Your task to perform on an android device: turn on the 12-hour format for clock Image 0: 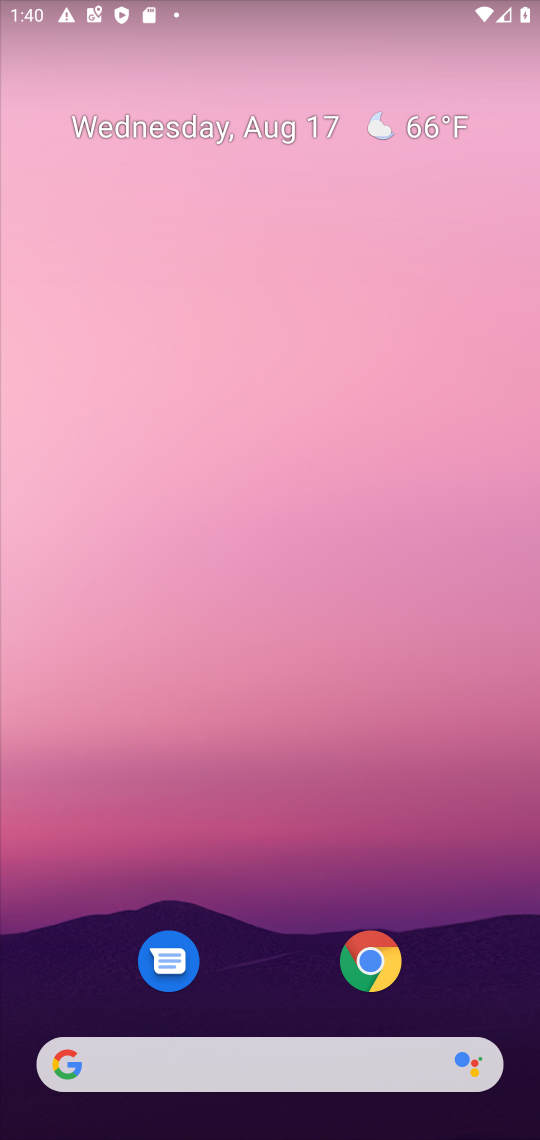
Step 0: drag from (199, 836) to (9, 635)
Your task to perform on an android device: turn on the 12-hour format for clock Image 1: 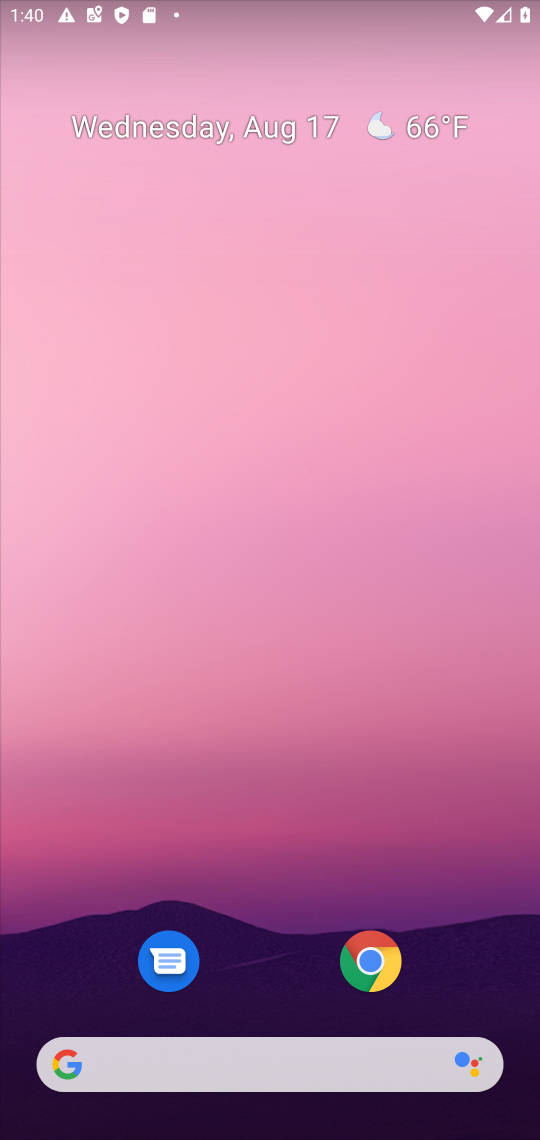
Step 1: drag from (301, 888) to (323, 71)
Your task to perform on an android device: turn on the 12-hour format for clock Image 2: 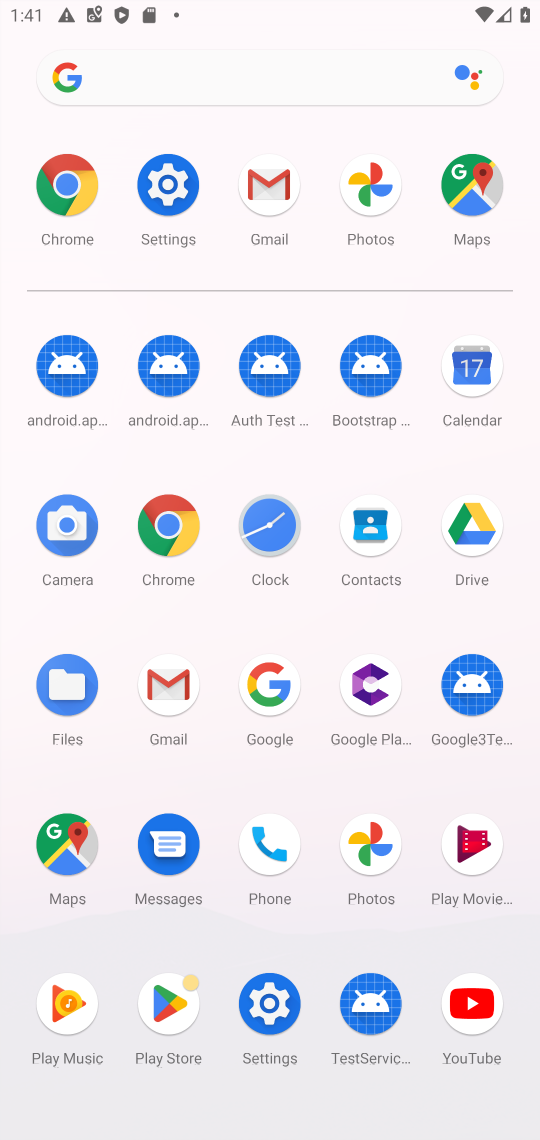
Step 2: click (279, 553)
Your task to perform on an android device: turn on the 12-hour format for clock Image 3: 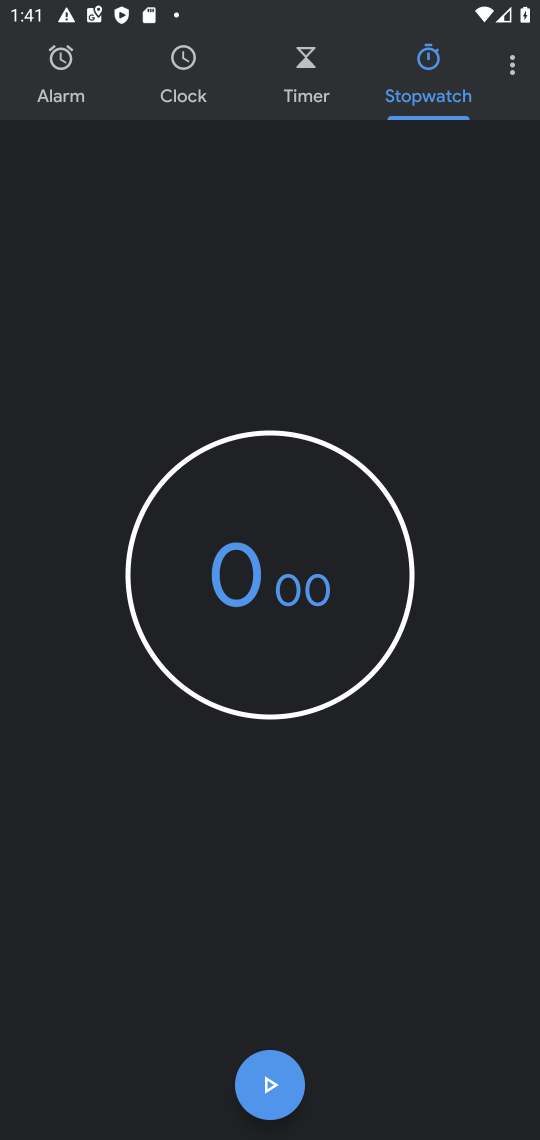
Step 3: click (494, 75)
Your task to perform on an android device: turn on the 12-hour format for clock Image 4: 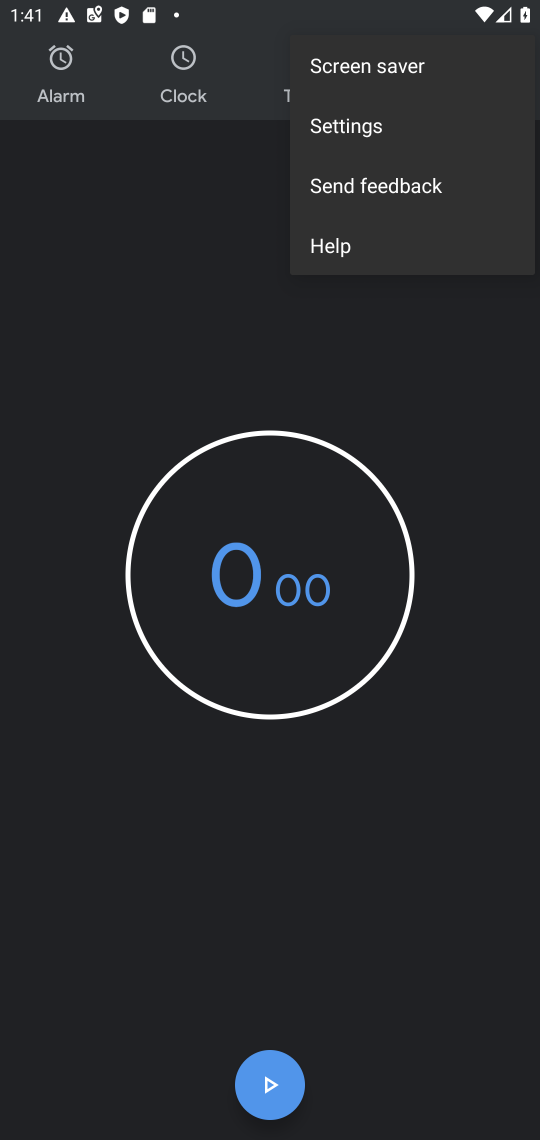
Step 4: click (392, 125)
Your task to perform on an android device: turn on the 12-hour format for clock Image 5: 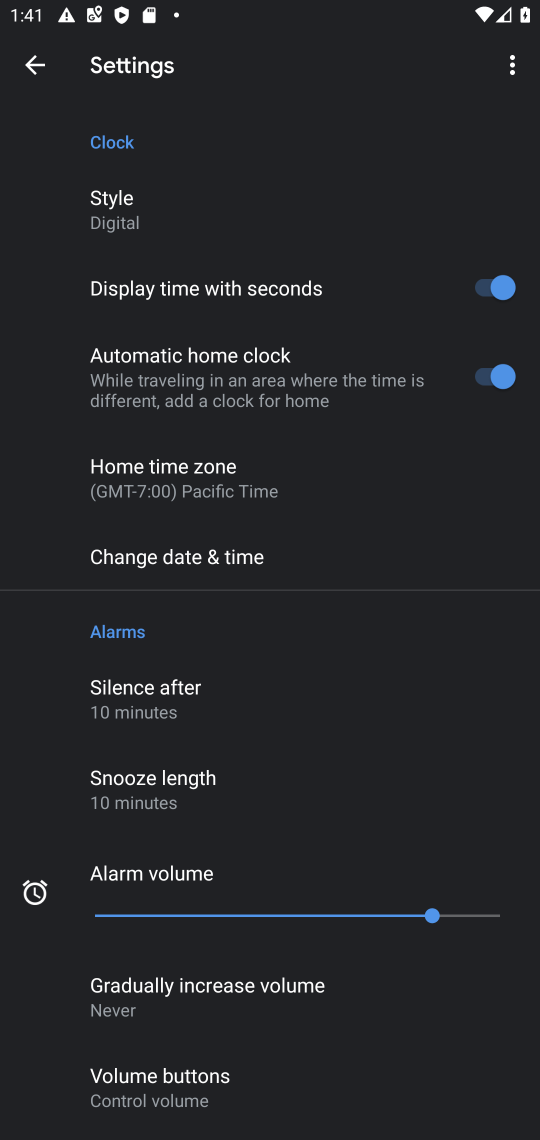
Step 5: click (241, 558)
Your task to perform on an android device: turn on the 12-hour format for clock Image 6: 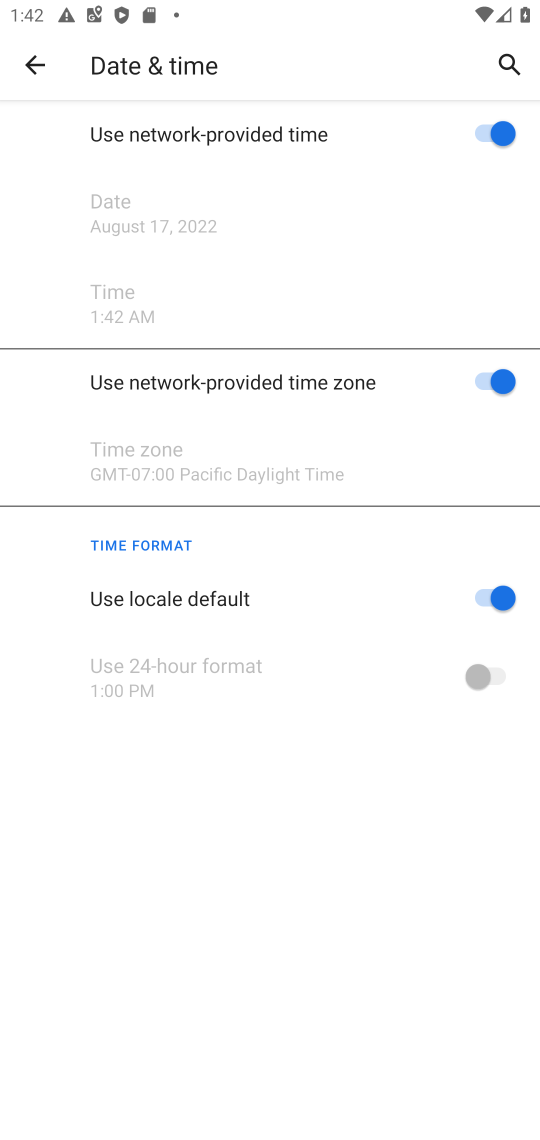
Step 6: task complete